Your task to perform on an android device: Open ESPN.com Image 0: 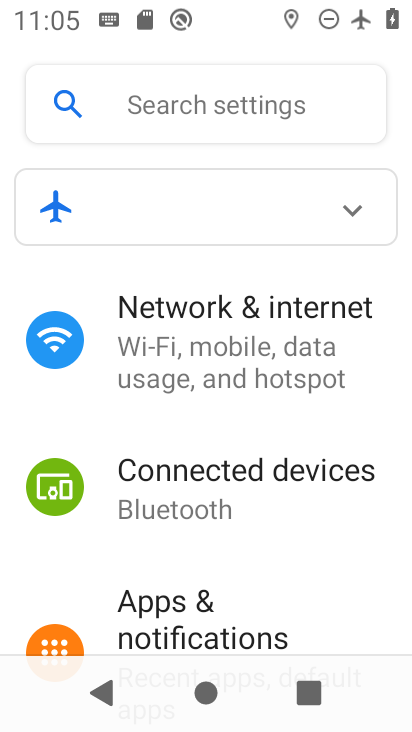
Step 0: press home button
Your task to perform on an android device: Open ESPN.com Image 1: 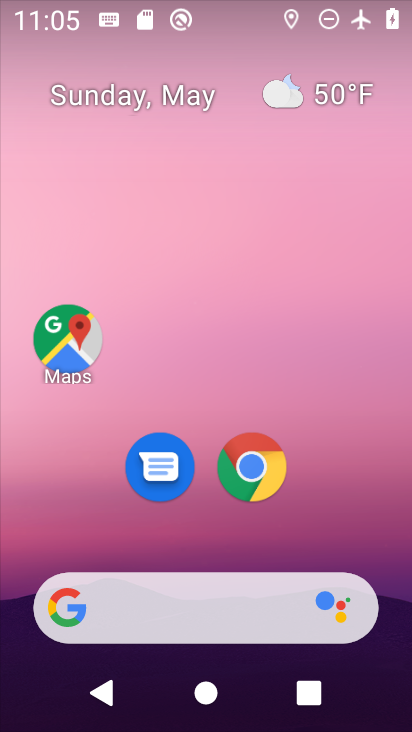
Step 1: click (244, 483)
Your task to perform on an android device: Open ESPN.com Image 2: 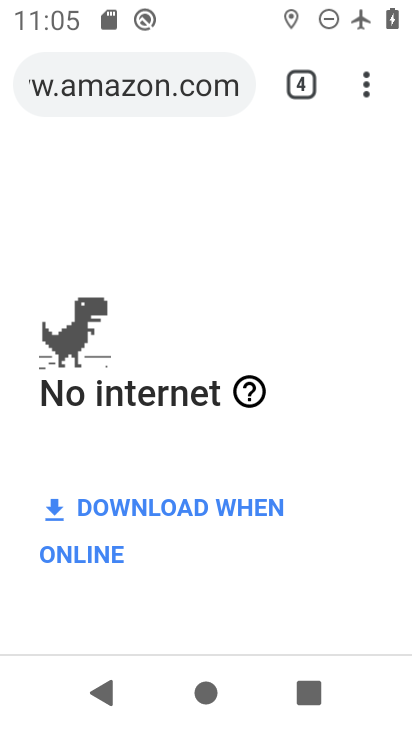
Step 2: click (302, 89)
Your task to perform on an android device: Open ESPN.com Image 3: 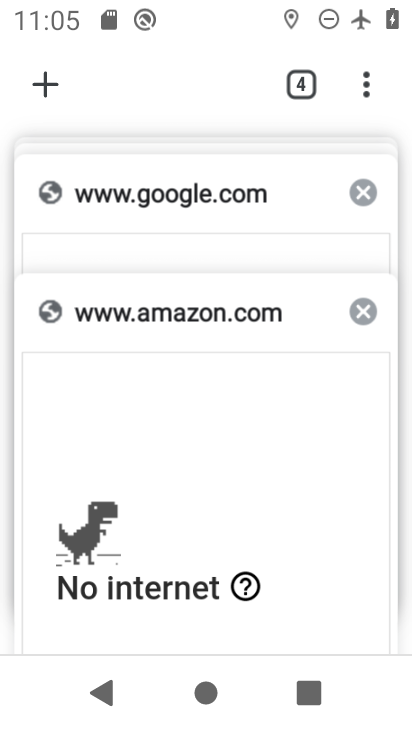
Step 3: click (48, 94)
Your task to perform on an android device: Open ESPN.com Image 4: 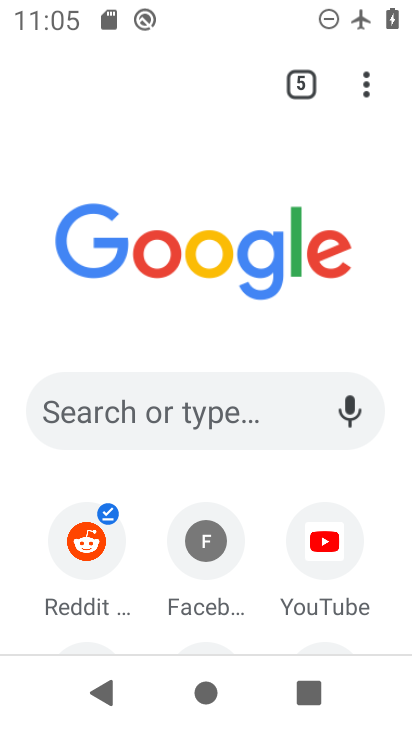
Step 4: drag from (207, 392) to (234, 192)
Your task to perform on an android device: Open ESPN.com Image 5: 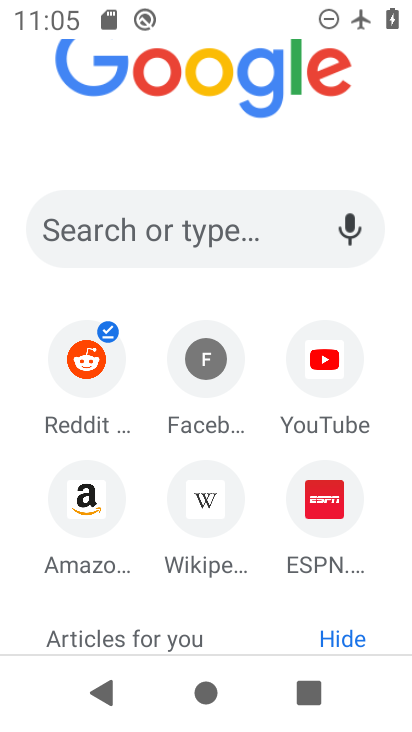
Step 5: click (318, 526)
Your task to perform on an android device: Open ESPN.com Image 6: 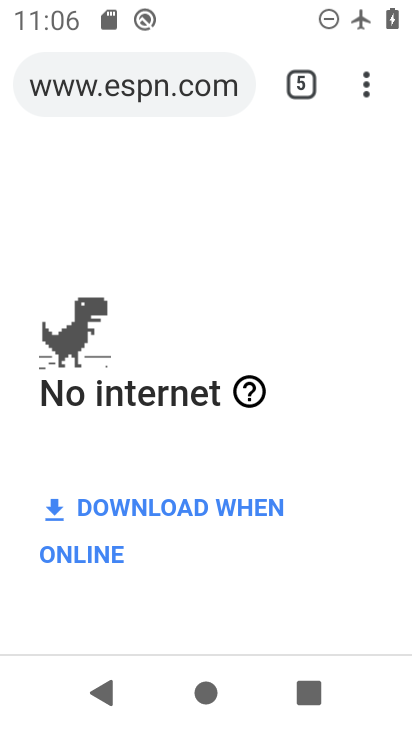
Step 6: task complete